Your task to perform on an android device: Open maps Image 0: 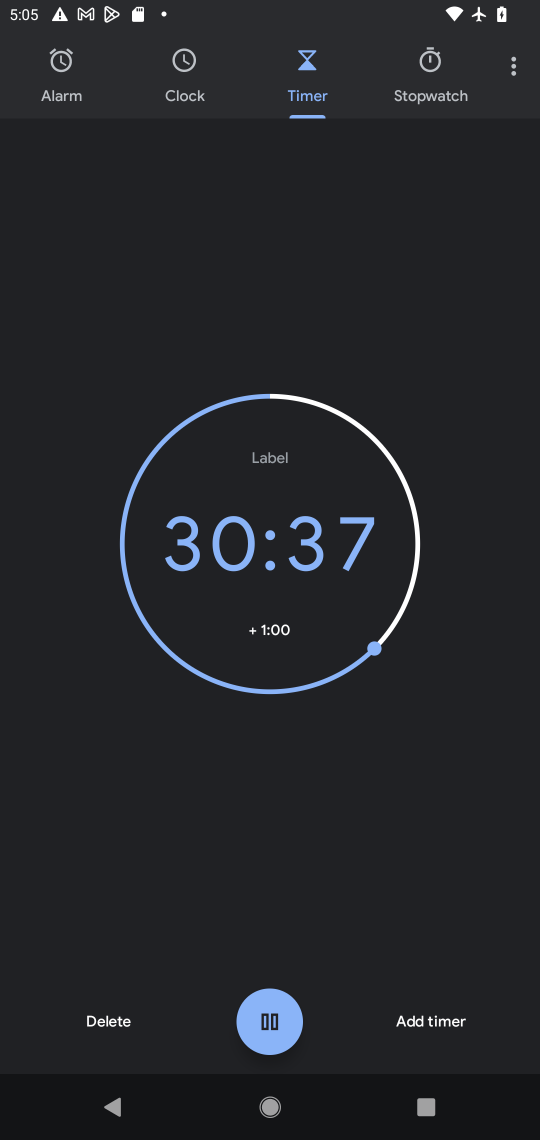
Step 0: press home button
Your task to perform on an android device: Open maps Image 1: 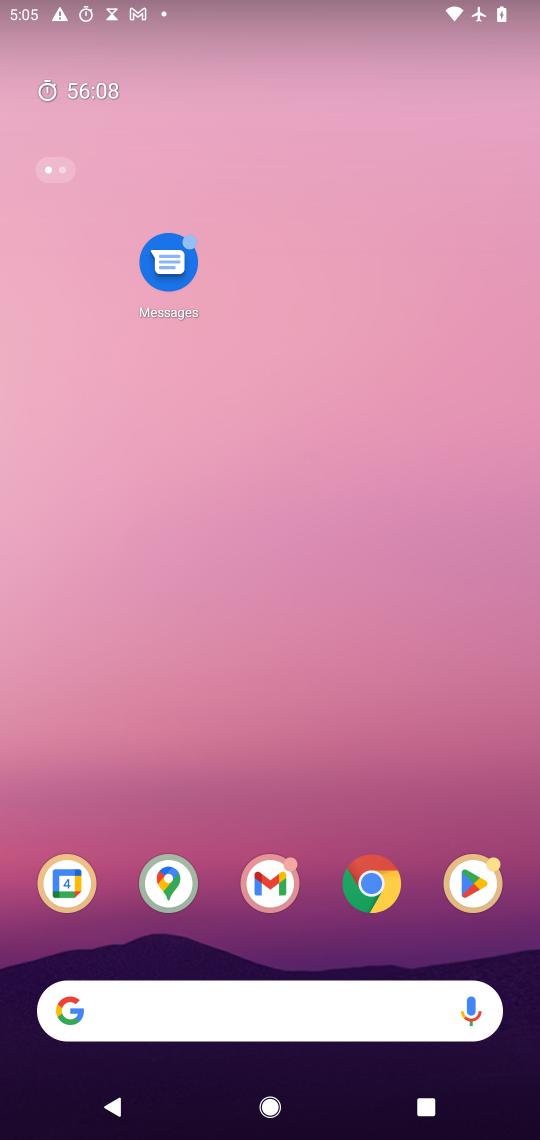
Step 1: drag from (301, 943) to (261, 40)
Your task to perform on an android device: Open maps Image 2: 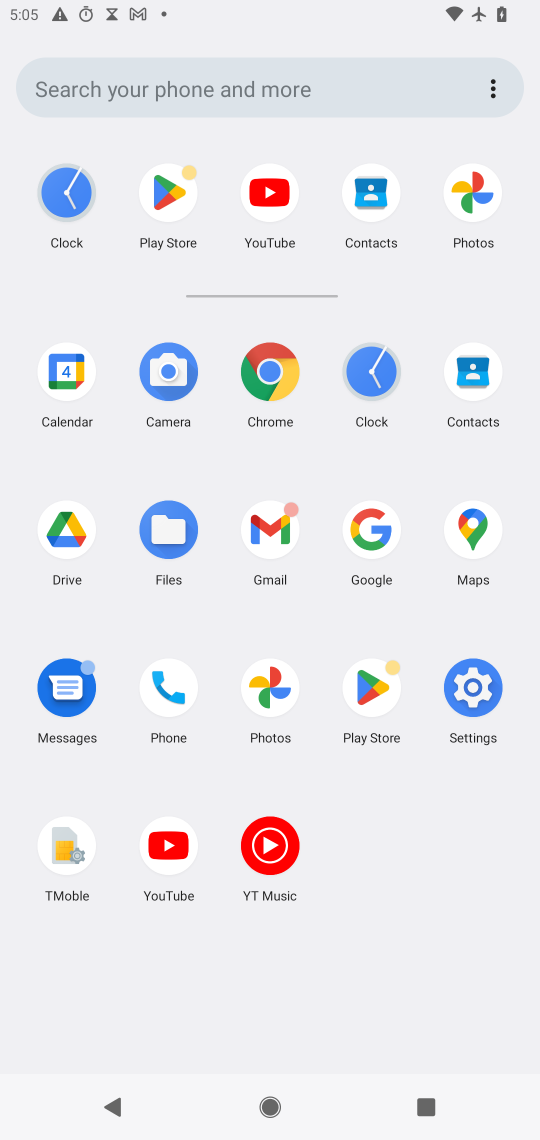
Step 2: click (482, 523)
Your task to perform on an android device: Open maps Image 3: 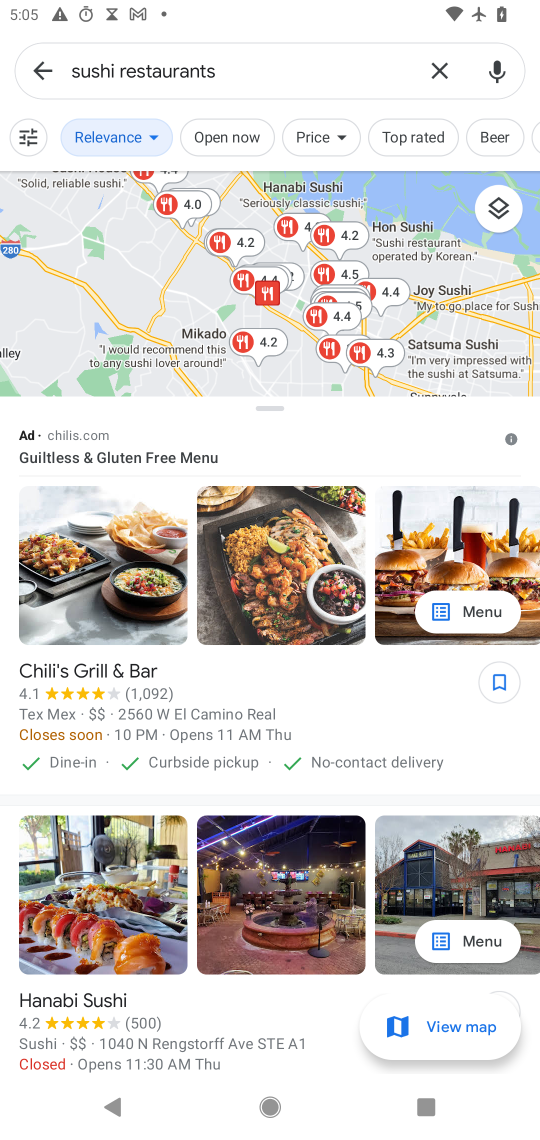
Step 3: task complete